Your task to perform on an android device: change notifications settings Image 0: 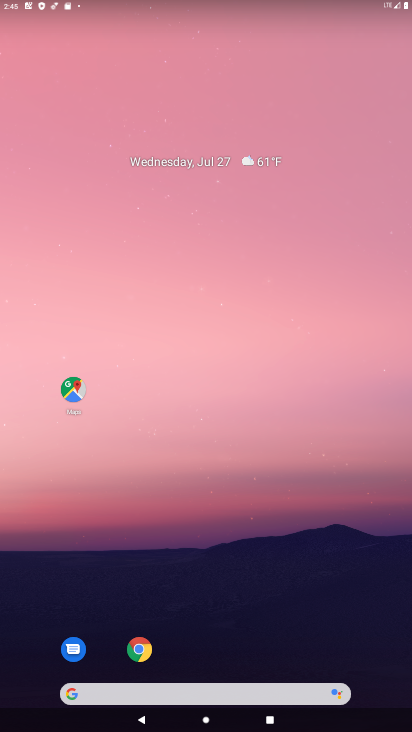
Step 0: drag from (188, 432) to (188, 186)
Your task to perform on an android device: change notifications settings Image 1: 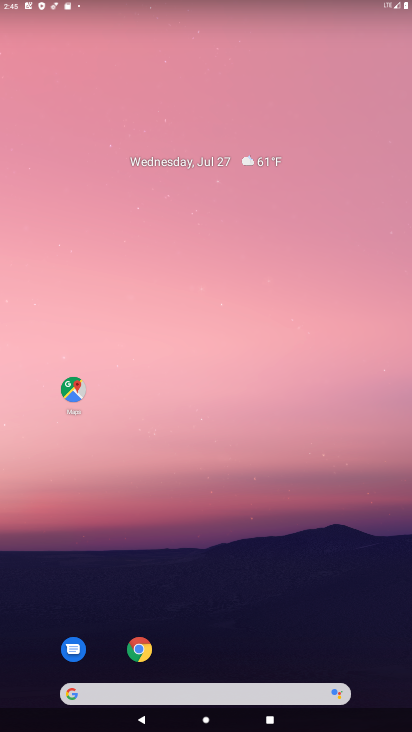
Step 1: drag from (203, 633) to (204, 113)
Your task to perform on an android device: change notifications settings Image 2: 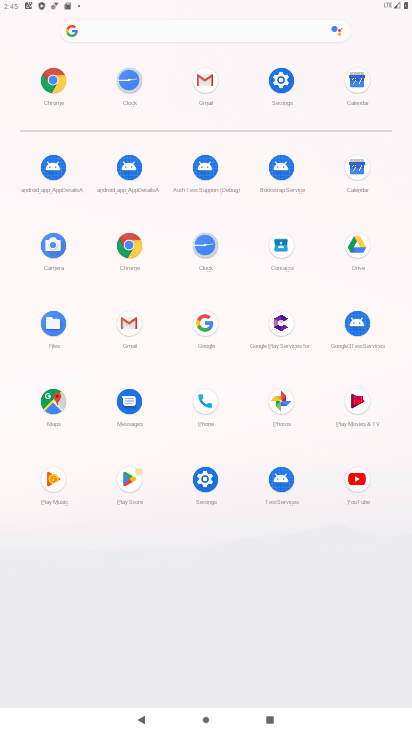
Step 2: click (283, 87)
Your task to perform on an android device: change notifications settings Image 3: 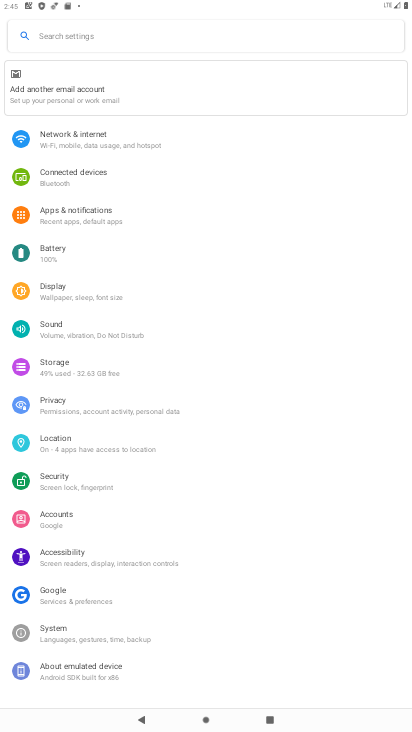
Step 3: drag from (197, 581) to (177, 354)
Your task to perform on an android device: change notifications settings Image 4: 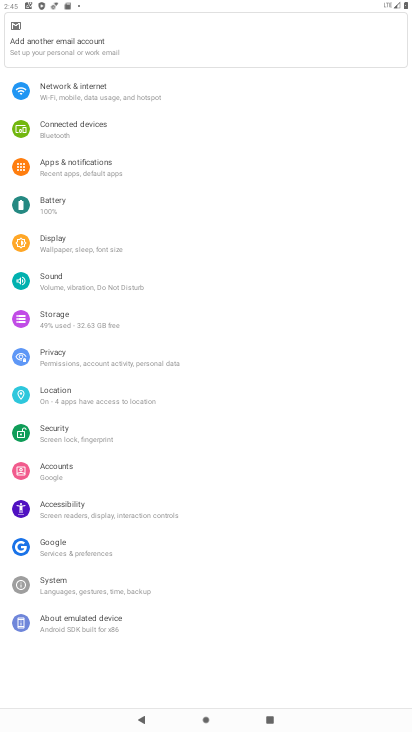
Step 4: click (217, 666)
Your task to perform on an android device: change notifications settings Image 5: 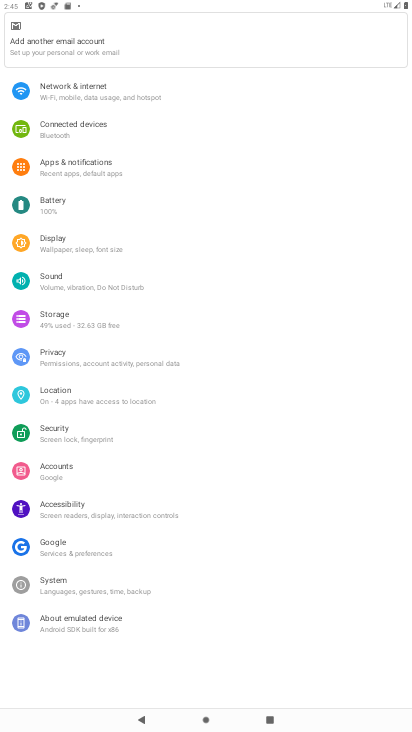
Step 5: click (192, 567)
Your task to perform on an android device: change notifications settings Image 6: 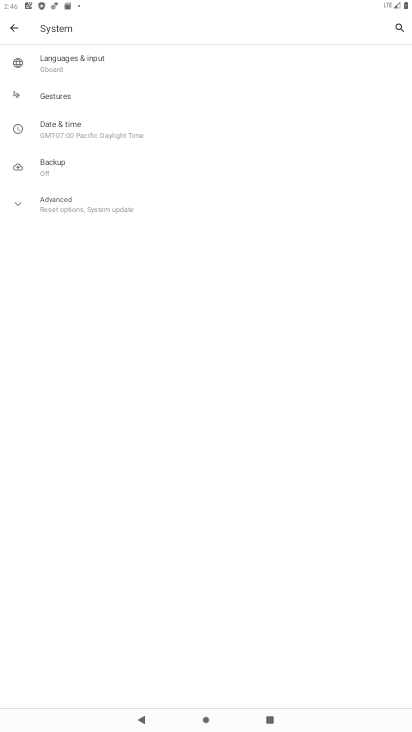
Step 6: click (4, 26)
Your task to perform on an android device: change notifications settings Image 7: 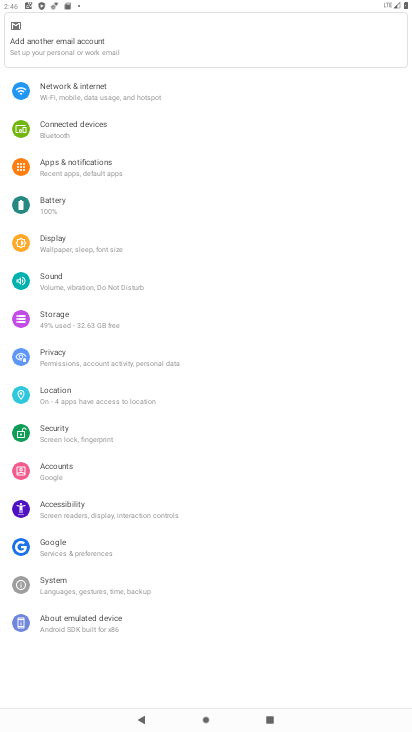
Step 7: click (54, 155)
Your task to perform on an android device: change notifications settings Image 8: 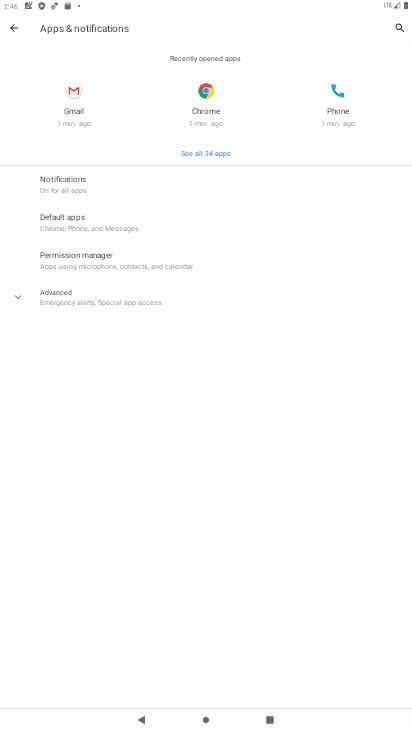
Step 8: click (44, 184)
Your task to perform on an android device: change notifications settings Image 9: 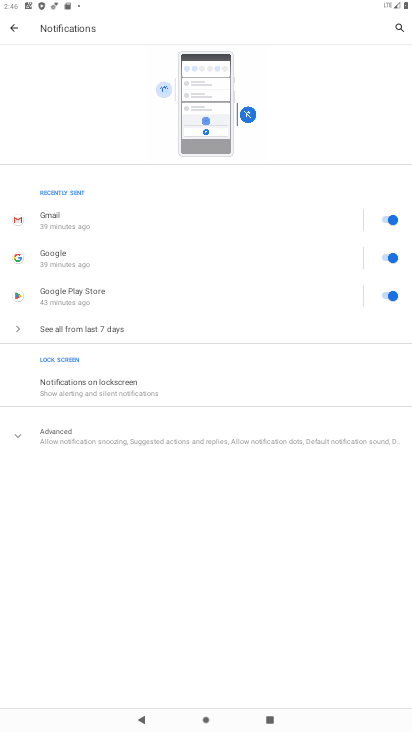
Step 9: click (76, 374)
Your task to perform on an android device: change notifications settings Image 10: 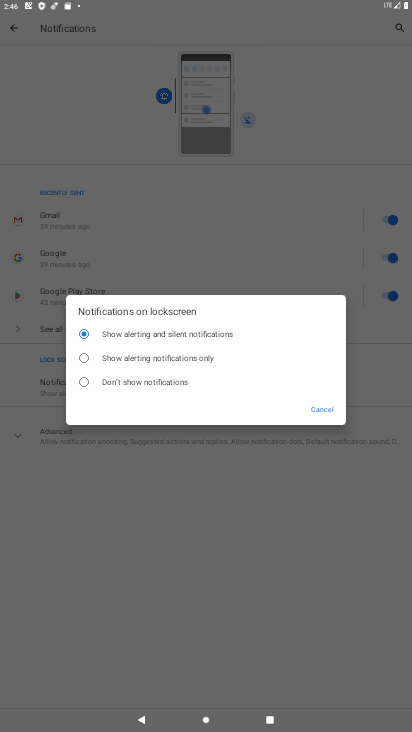
Step 10: click (80, 380)
Your task to perform on an android device: change notifications settings Image 11: 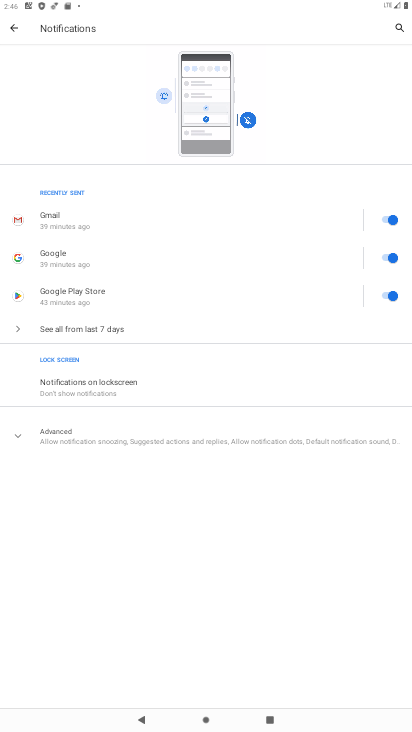
Step 11: task complete